Your task to perform on an android device: change the clock display to digital Image 0: 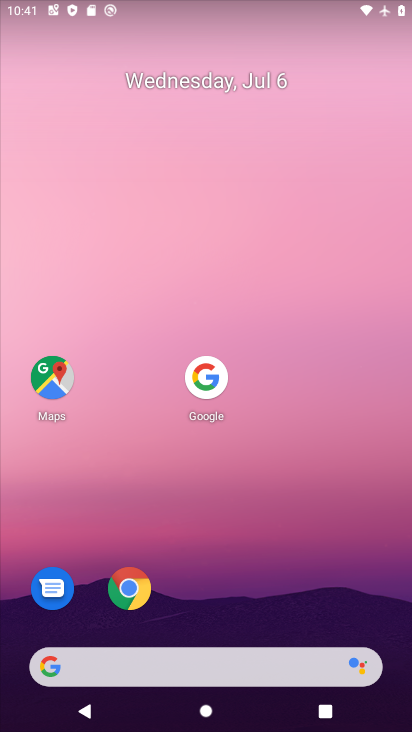
Step 0: drag from (216, 668) to (316, 139)
Your task to perform on an android device: change the clock display to digital Image 1: 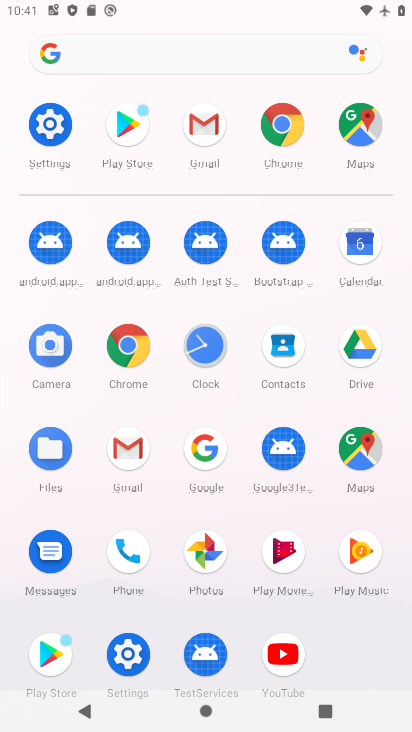
Step 1: click (209, 354)
Your task to perform on an android device: change the clock display to digital Image 2: 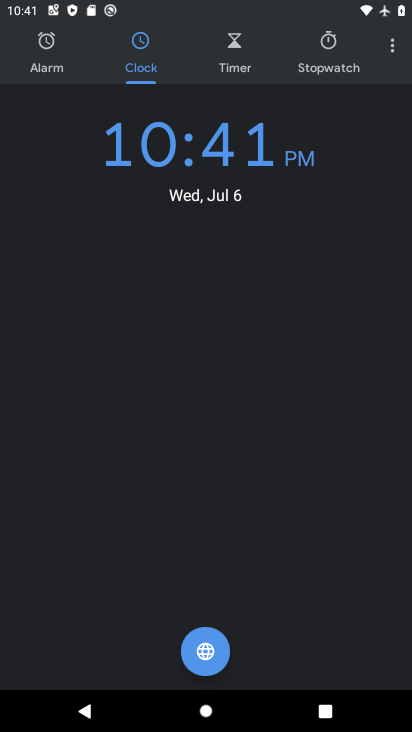
Step 2: click (394, 49)
Your task to perform on an android device: change the clock display to digital Image 3: 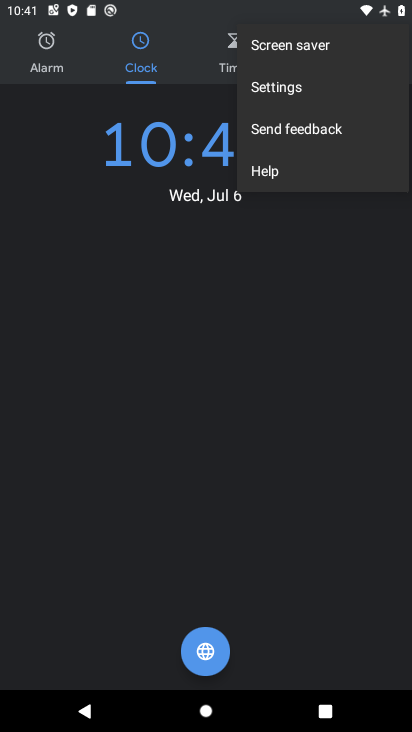
Step 3: click (301, 89)
Your task to perform on an android device: change the clock display to digital Image 4: 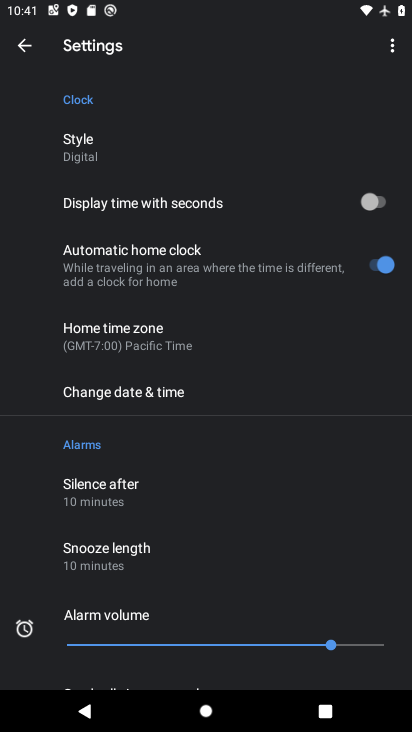
Step 4: task complete